Your task to perform on an android device: find snoozed emails in the gmail app Image 0: 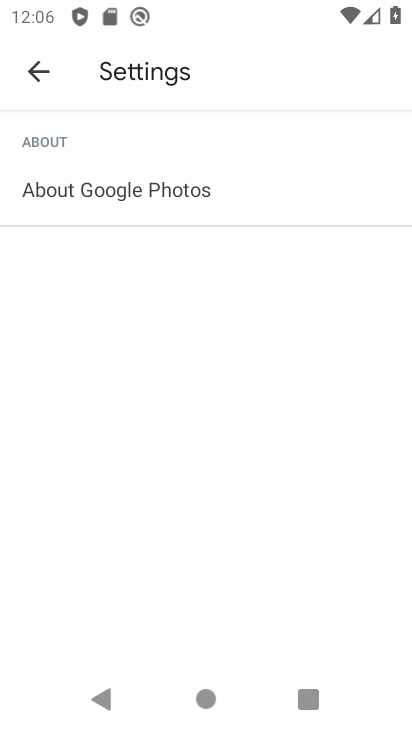
Step 0: click (29, 82)
Your task to perform on an android device: find snoozed emails in the gmail app Image 1: 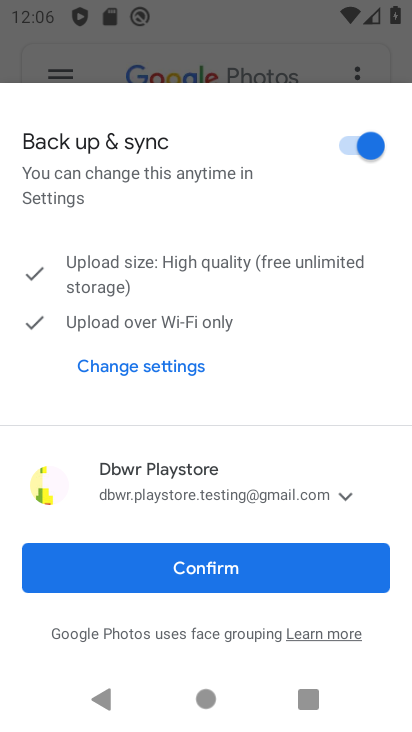
Step 1: click (229, 573)
Your task to perform on an android device: find snoozed emails in the gmail app Image 2: 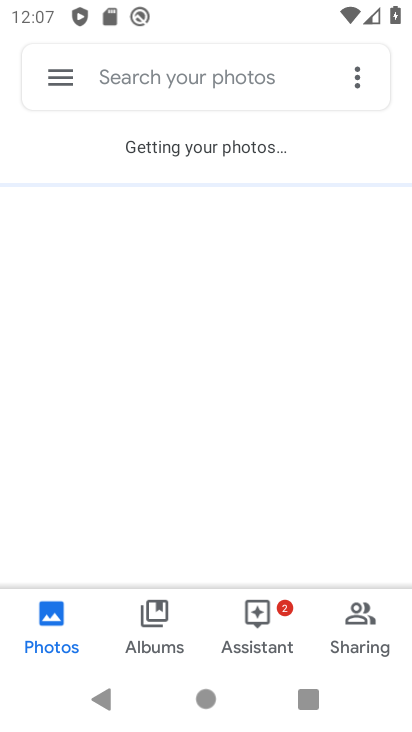
Step 2: press home button
Your task to perform on an android device: find snoozed emails in the gmail app Image 3: 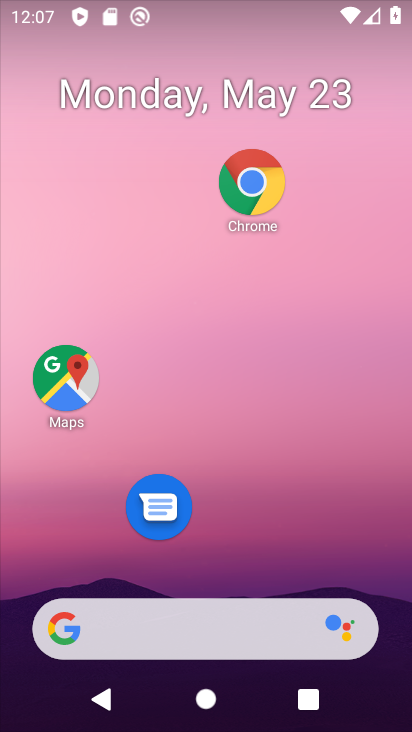
Step 3: drag from (240, 463) to (246, 65)
Your task to perform on an android device: find snoozed emails in the gmail app Image 4: 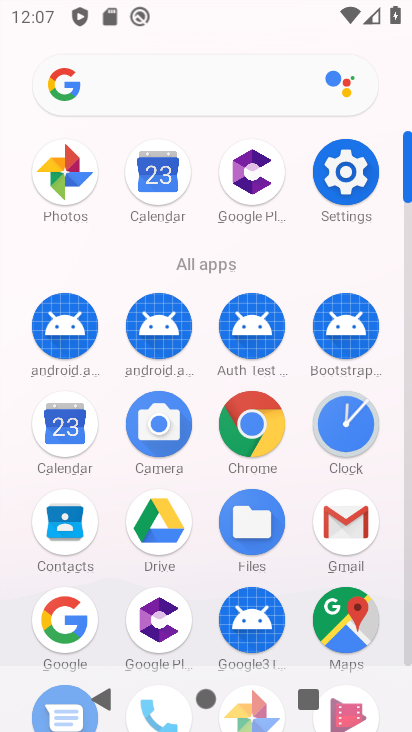
Step 4: click (318, 506)
Your task to perform on an android device: find snoozed emails in the gmail app Image 5: 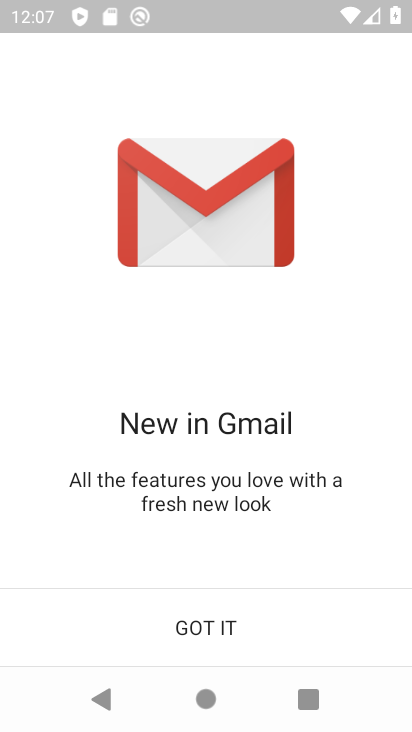
Step 5: click (208, 615)
Your task to perform on an android device: find snoozed emails in the gmail app Image 6: 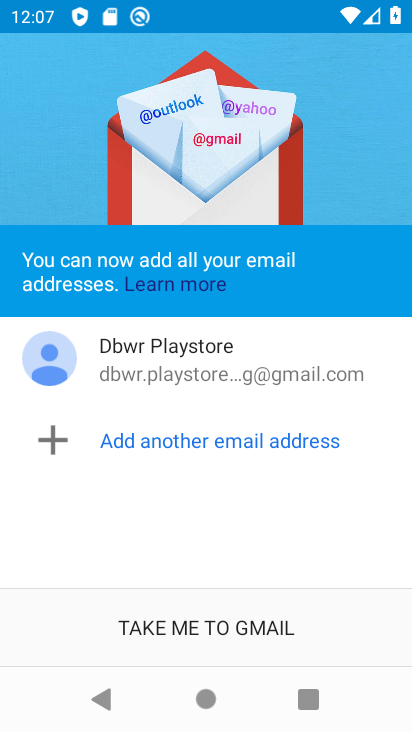
Step 6: click (208, 615)
Your task to perform on an android device: find snoozed emails in the gmail app Image 7: 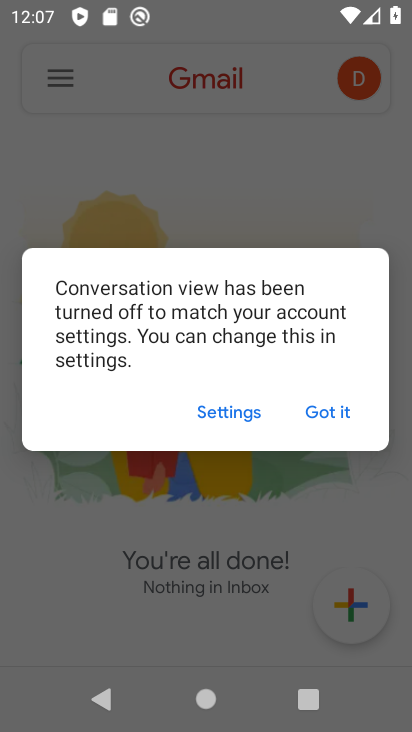
Step 7: click (323, 406)
Your task to perform on an android device: find snoozed emails in the gmail app Image 8: 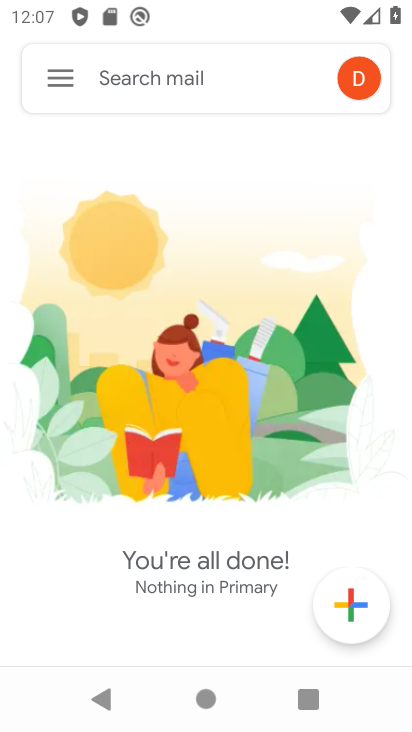
Step 8: click (53, 69)
Your task to perform on an android device: find snoozed emails in the gmail app Image 9: 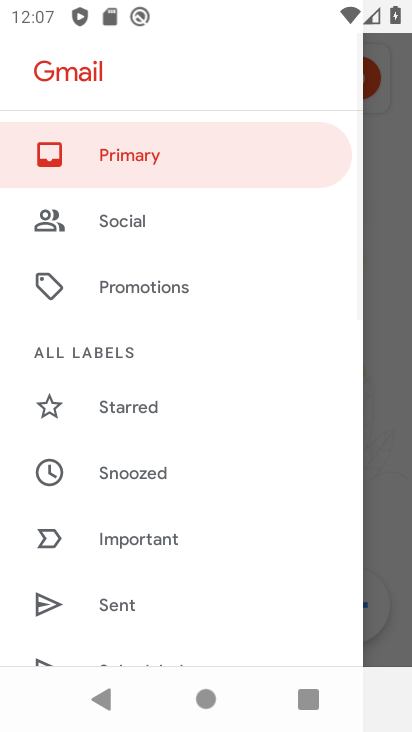
Step 9: click (169, 475)
Your task to perform on an android device: find snoozed emails in the gmail app Image 10: 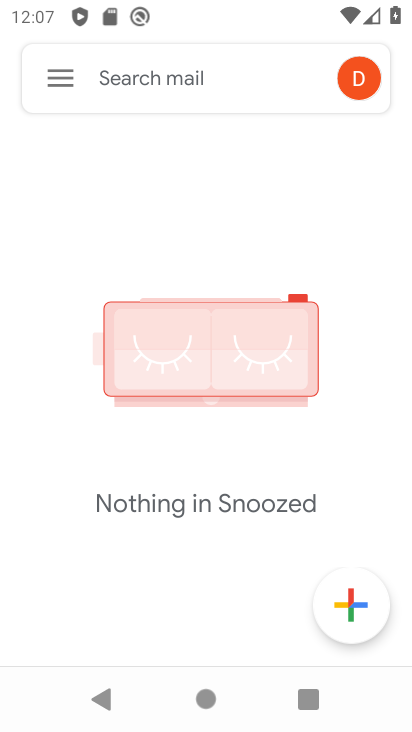
Step 10: task complete